Your task to perform on an android device: Open Chrome and go to the settings page Image 0: 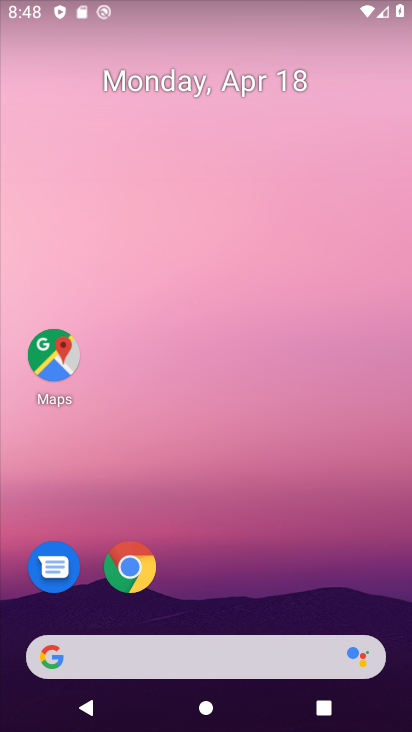
Step 0: click (140, 576)
Your task to perform on an android device: Open Chrome and go to the settings page Image 1: 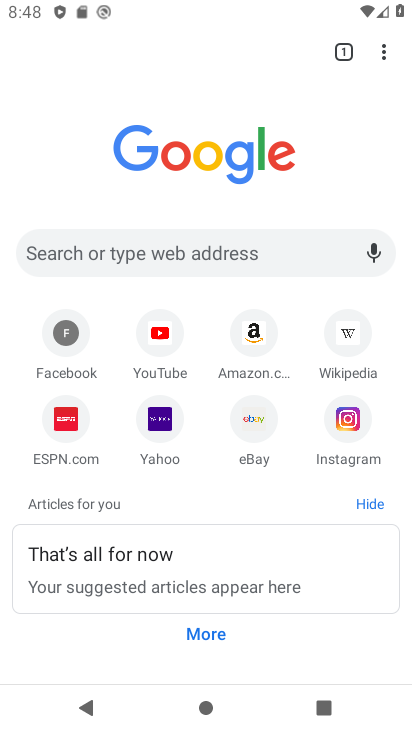
Step 1: click (385, 50)
Your task to perform on an android device: Open Chrome and go to the settings page Image 2: 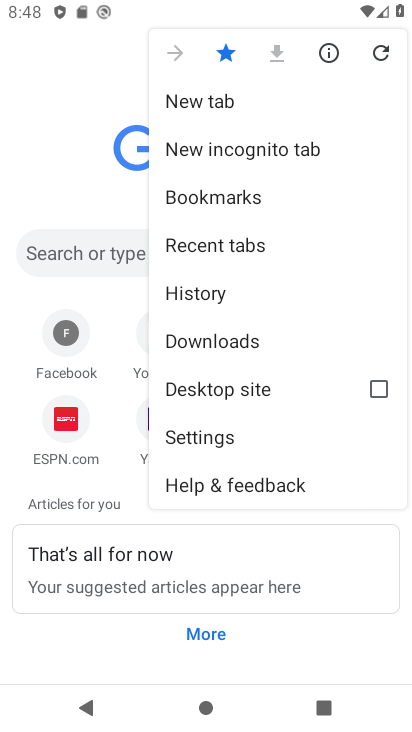
Step 2: click (222, 440)
Your task to perform on an android device: Open Chrome and go to the settings page Image 3: 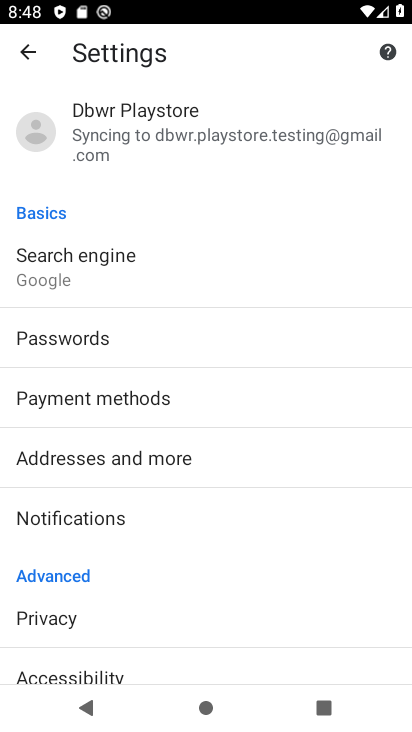
Step 3: task complete